Your task to perform on an android device: Open Wikipedia Image 0: 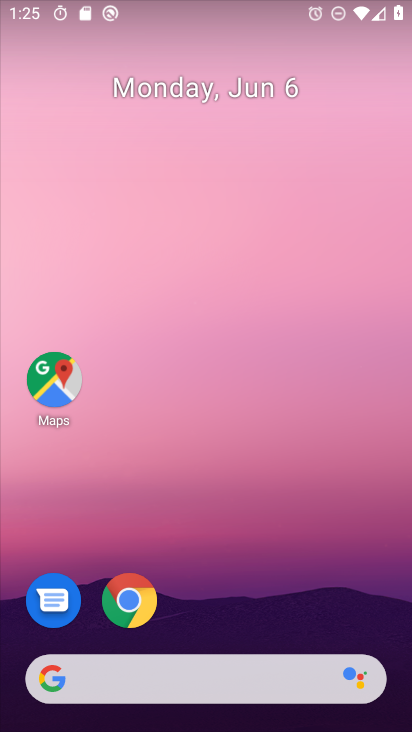
Step 0: click (116, 622)
Your task to perform on an android device: Open Wikipedia Image 1: 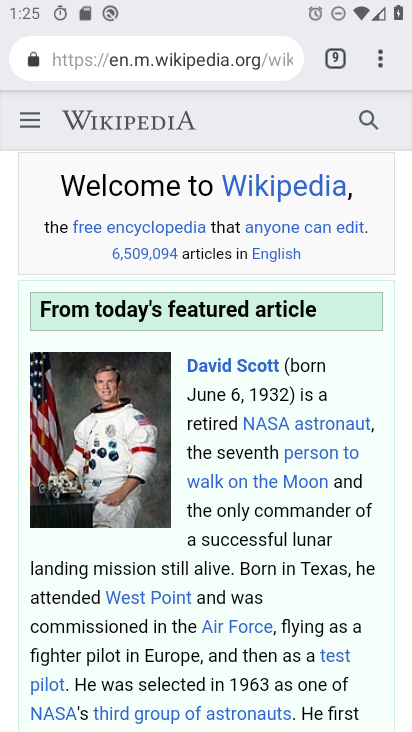
Step 1: task complete